Your task to perform on an android device: Is it going to rain this weekend? Image 0: 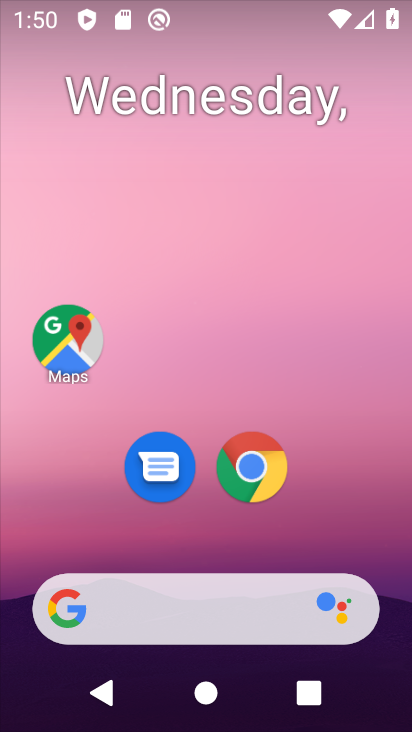
Step 0: click (203, 618)
Your task to perform on an android device: Is it going to rain this weekend? Image 1: 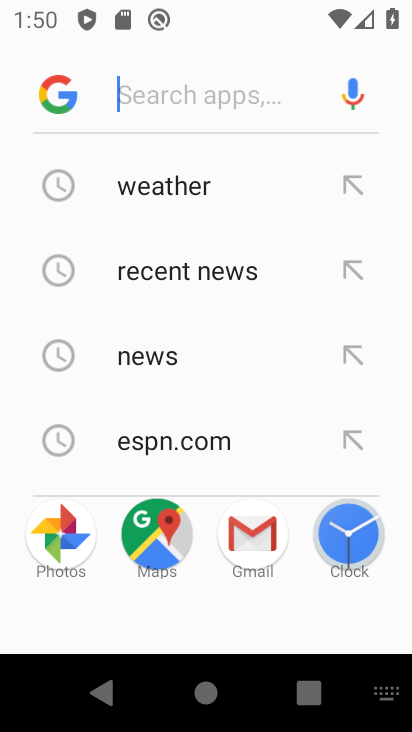
Step 1: type "is it going to rain this weekend"
Your task to perform on an android device: Is it going to rain this weekend? Image 2: 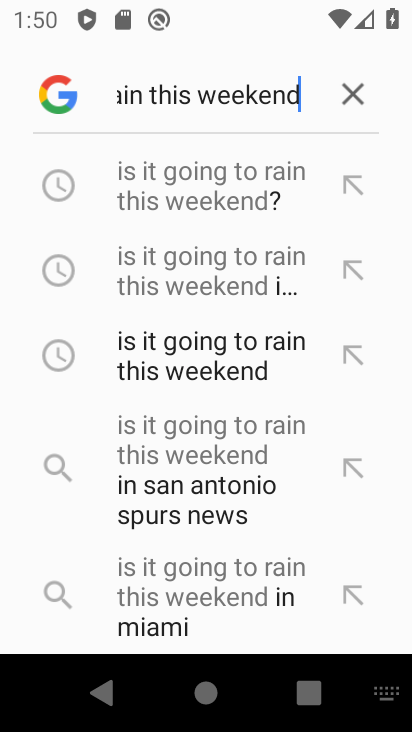
Step 2: click (196, 200)
Your task to perform on an android device: Is it going to rain this weekend? Image 3: 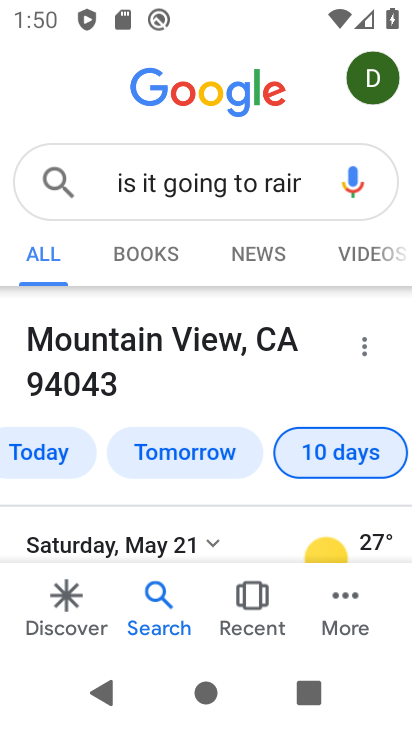
Step 3: task complete